Your task to perform on an android device: What is the recent news? Image 0: 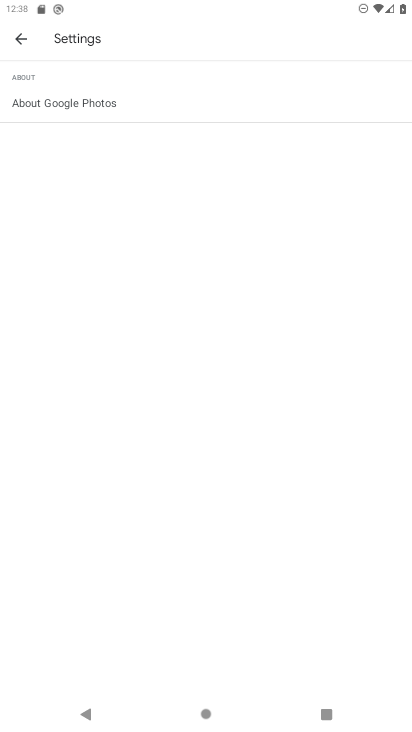
Step 0: press home button
Your task to perform on an android device: What is the recent news? Image 1: 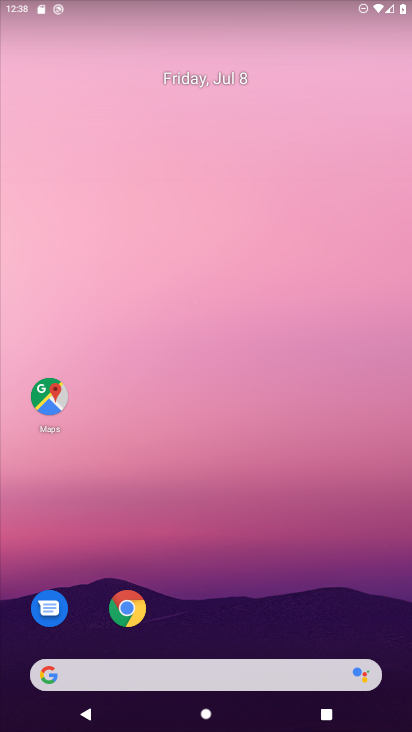
Step 1: task complete